Your task to perform on an android device: add a label to a message in the gmail app Image 0: 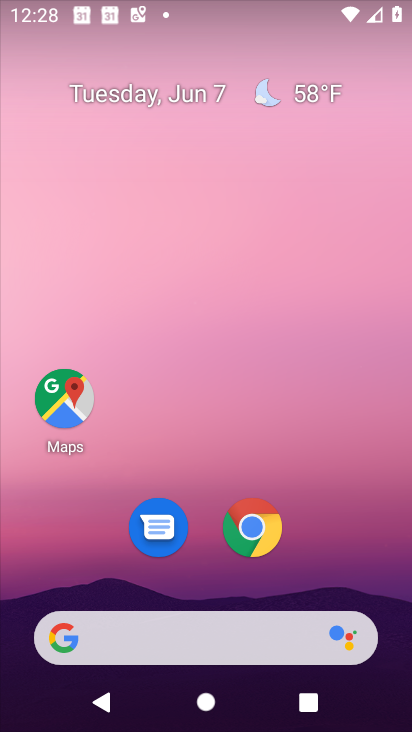
Step 0: drag from (258, 716) to (222, 194)
Your task to perform on an android device: add a label to a message in the gmail app Image 1: 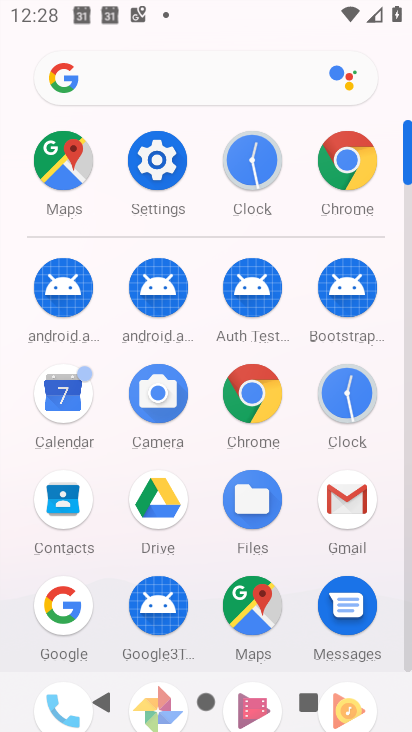
Step 1: click (342, 496)
Your task to perform on an android device: add a label to a message in the gmail app Image 2: 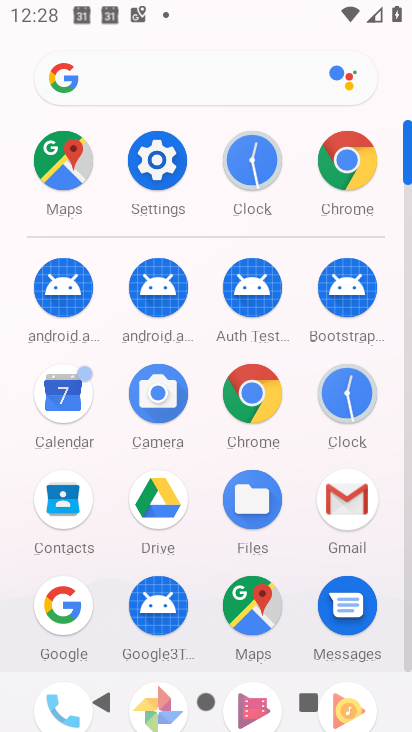
Step 2: click (342, 494)
Your task to perform on an android device: add a label to a message in the gmail app Image 3: 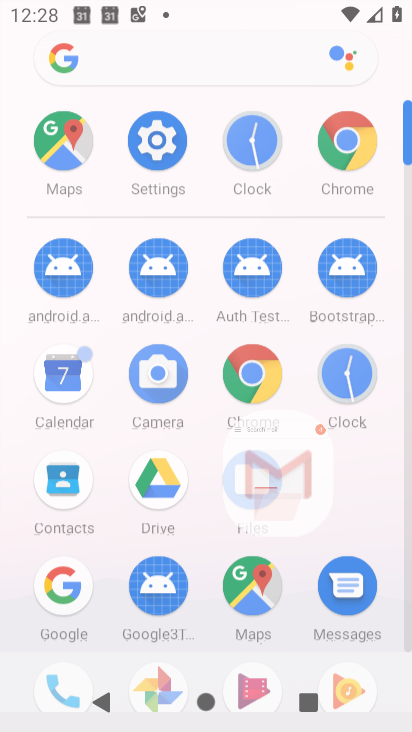
Step 3: click (346, 494)
Your task to perform on an android device: add a label to a message in the gmail app Image 4: 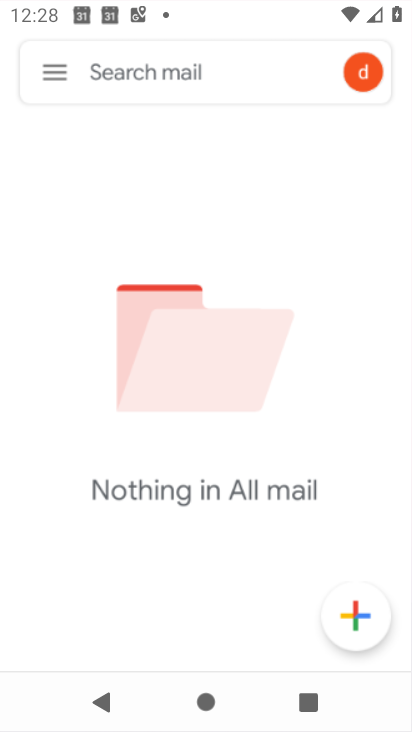
Step 4: click (347, 496)
Your task to perform on an android device: add a label to a message in the gmail app Image 5: 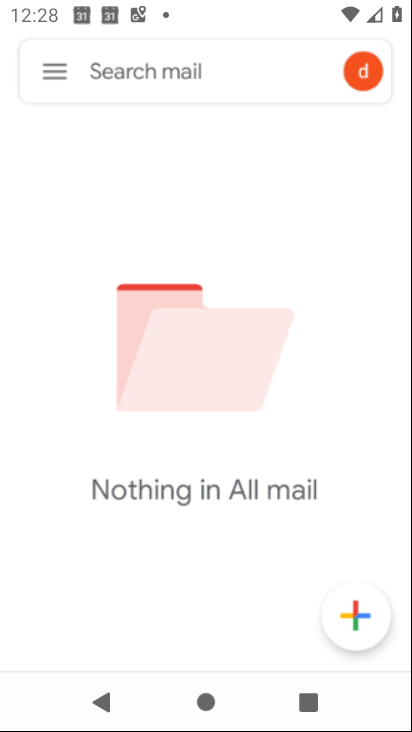
Step 5: click (346, 497)
Your task to perform on an android device: add a label to a message in the gmail app Image 6: 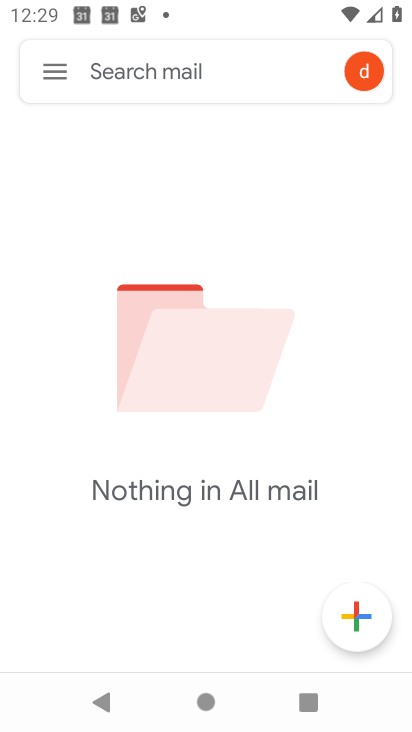
Step 6: click (54, 73)
Your task to perform on an android device: add a label to a message in the gmail app Image 7: 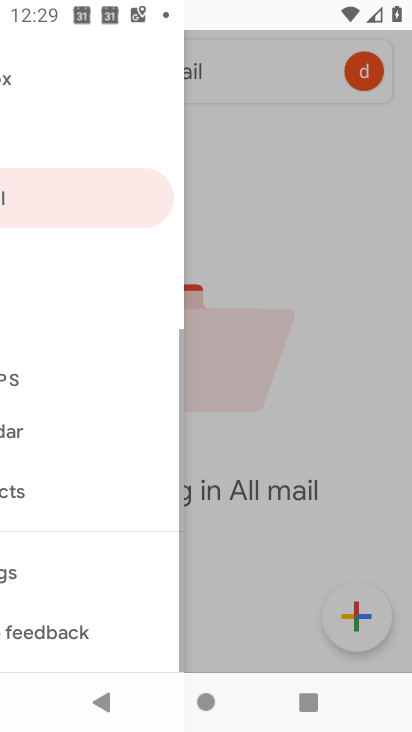
Step 7: click (54, 73)
Your task to perform on an android device: add a label to a message in the gmail app Image 8: 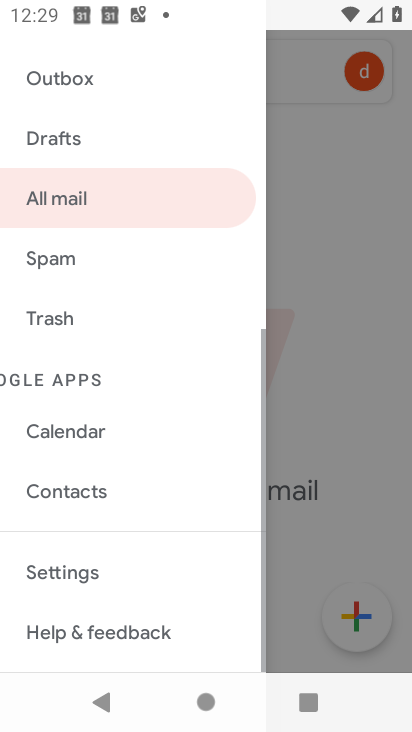
Step 8: click (54, 73)
Your task to perform on an android device: add a label to a message in the gmail app Image 9: 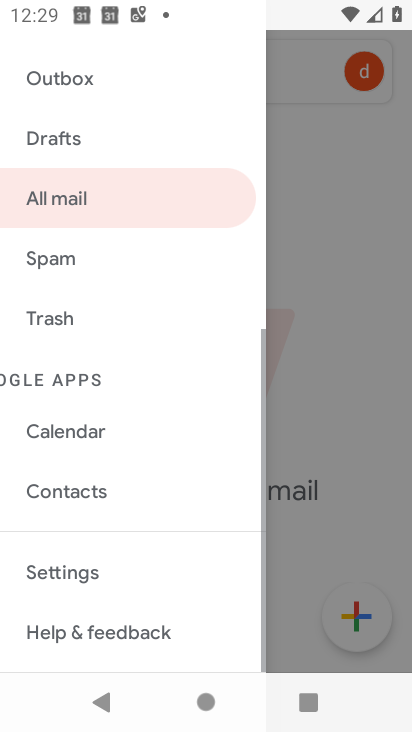
Step 9: click (57, 72)
Your task to perform on an android device: add a label to a message in the gmail app Image 10: 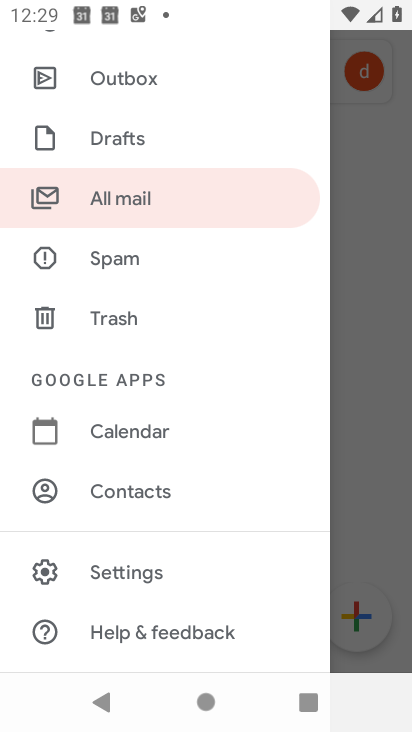
Step 10: click (123, 187)
Your task to perform on an android device: add a label to a message in the gmail app Image 11: 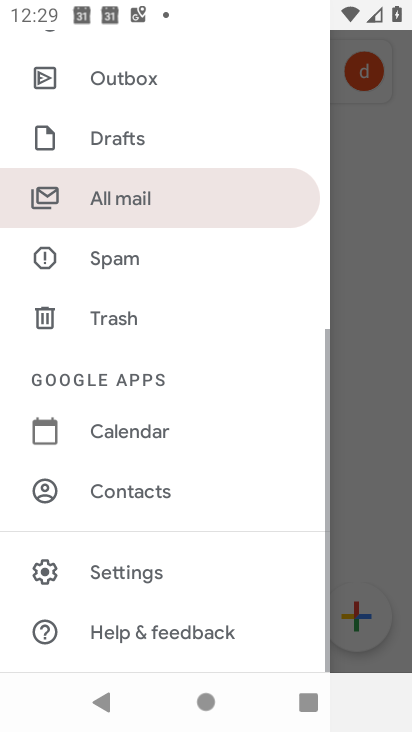
Step 11: click (124, 189)
Your task to perform on an android device: add a label to a message in the gmail app Image 12: 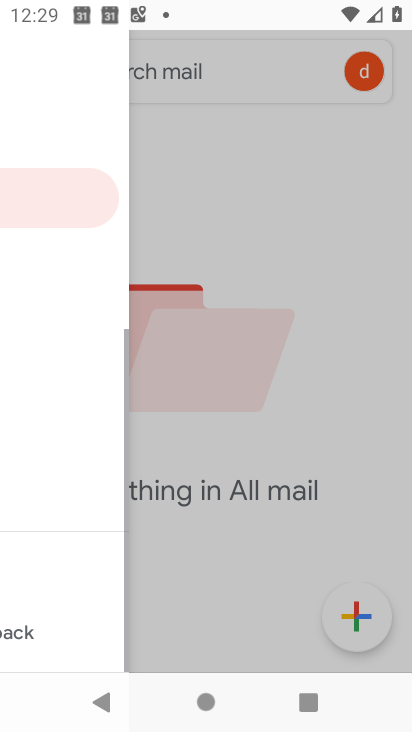
Step 12: click (124, 189)
Your task to perform on an android device: add a label to a message in the gmail app Image 13: 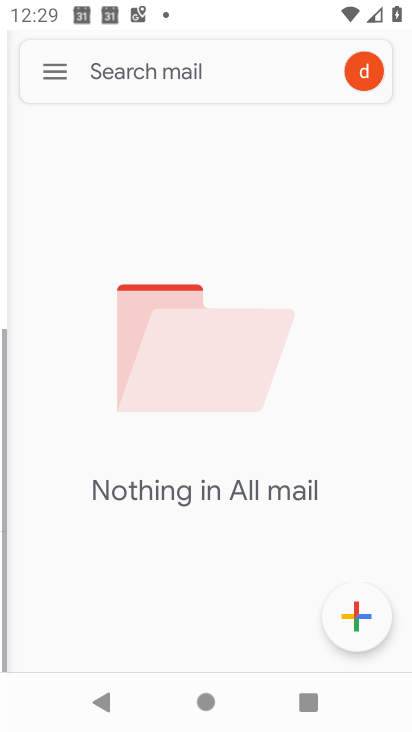
Step 13: click (124, 189)
Your task to perform on an android device: add a label to a message in the gmail app Image 14: 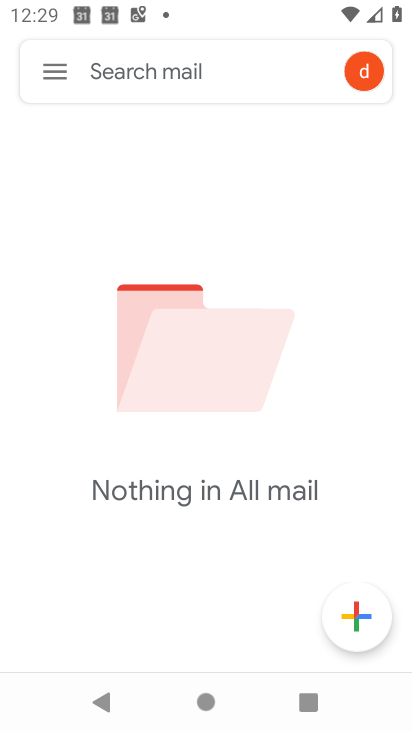
Step 14: click (125, 189)
Your task to perform on an android device: add a label to a message in the gmail app Image 15: 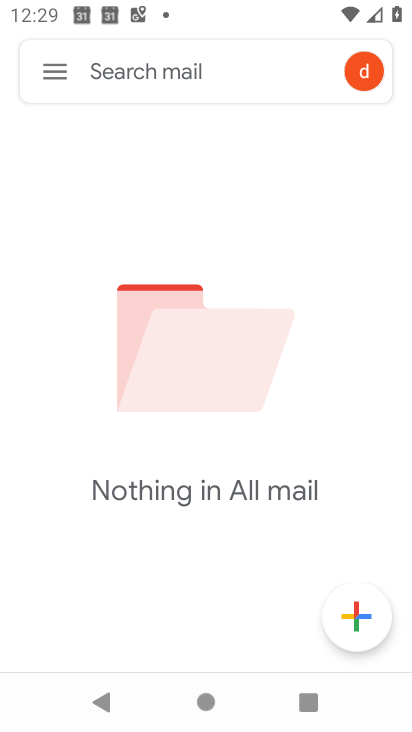
Step 15: task complete